Your task to perform on an android device: open app "Move to iOS" (install if not already installed), go to login, and select forgot password Image 0: 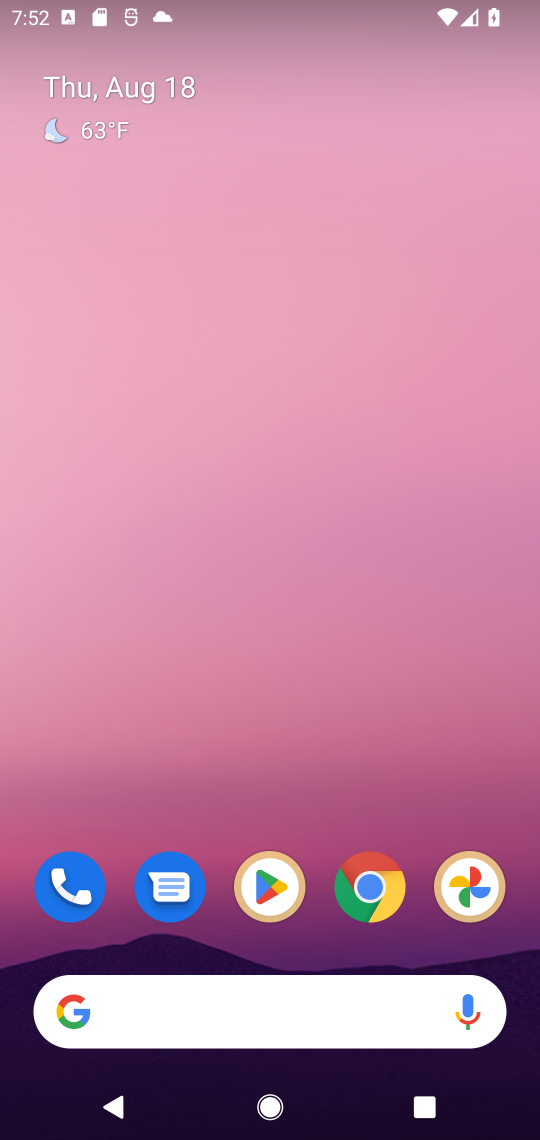
Step 0: drag from (311, 884) to (306, 118)
Your task to perform on an android device: open app "Move to iOS" (install if not already installed), go to login, and select forgot password Image 1: 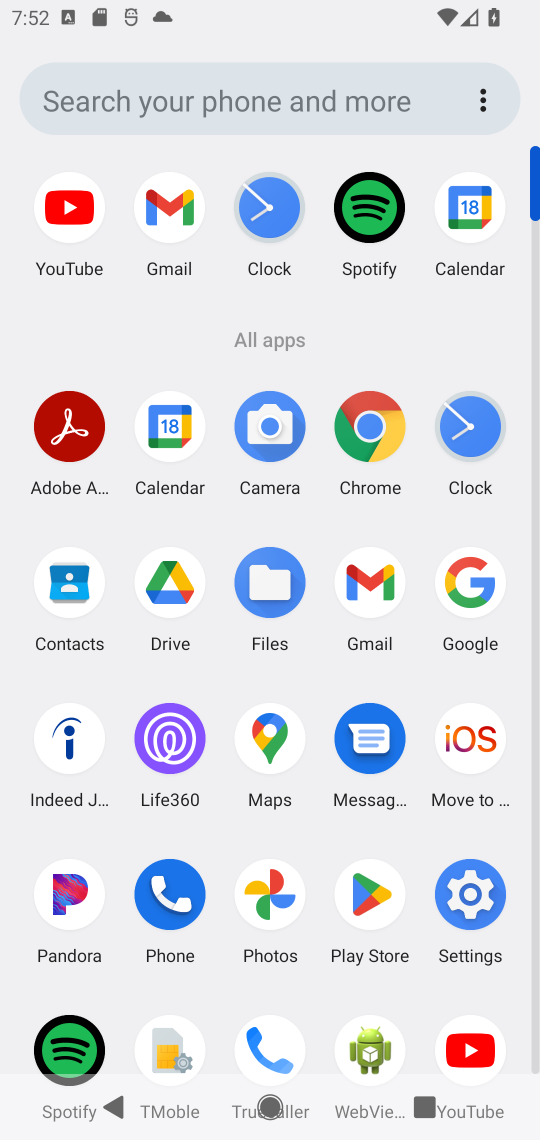
Step 1: click (375, 902)
Your task to perform on an android device: open app "Move to iOS" (install if not already installed), go to login, and select forgot password Image 2: 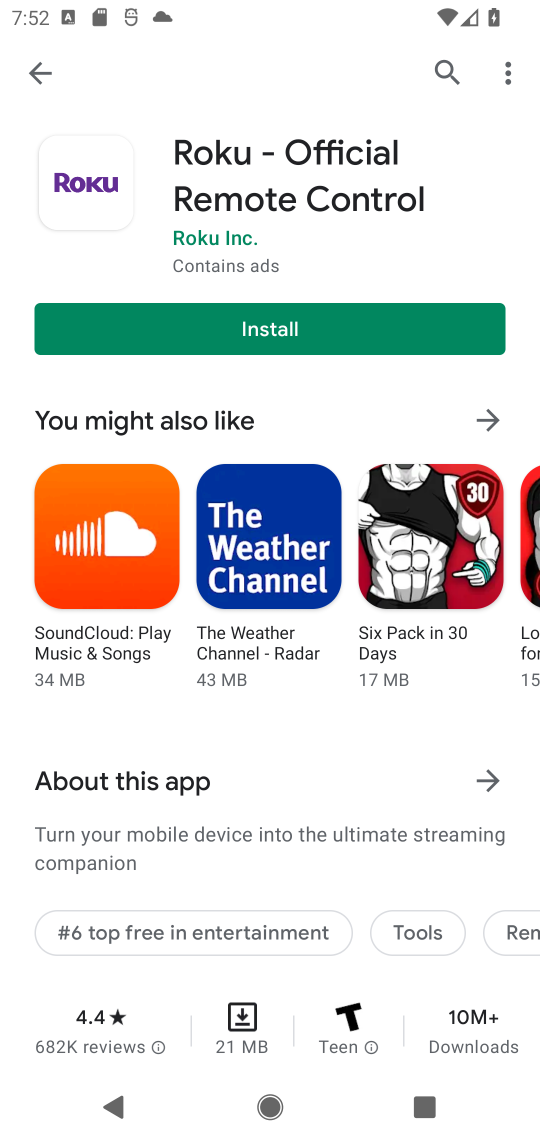
Step 2: click (444, 74)
Your task to perform on an android device: open app "Move to iOS" (install if not already installed), go to login, and select forgot password Image 3: 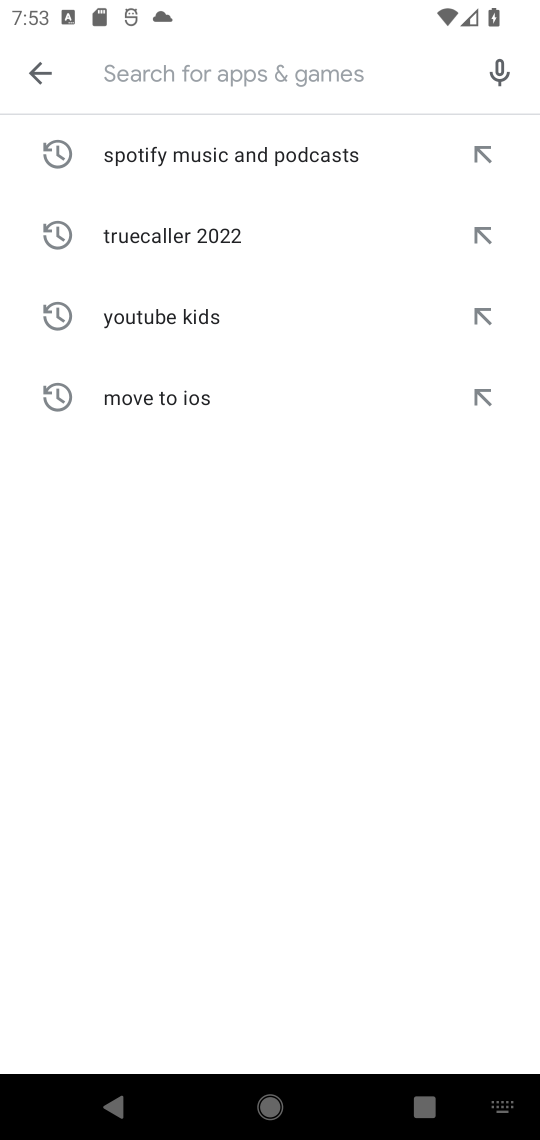
Step 3: type "Move to iOS"
Your task to perform on an android device: open app "Move to iOS" (install if not already installed), go to login, and select forgot password Image 4: 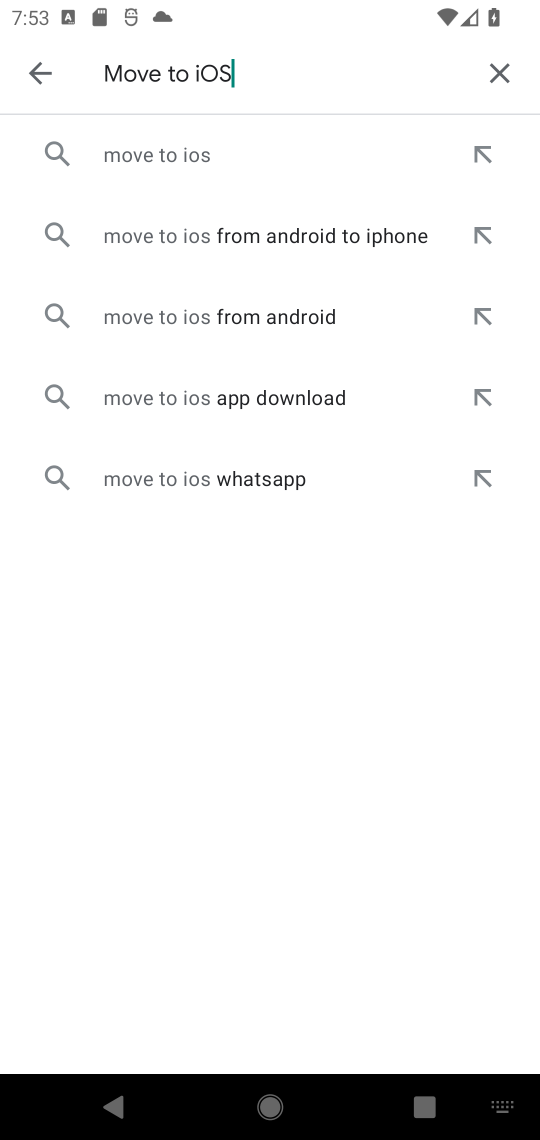
Step 4: click (195, 149)
Your task to perform on an android device: open app "Move to iOS" (install if not already installed), go to login, and select forgot password Image 5: 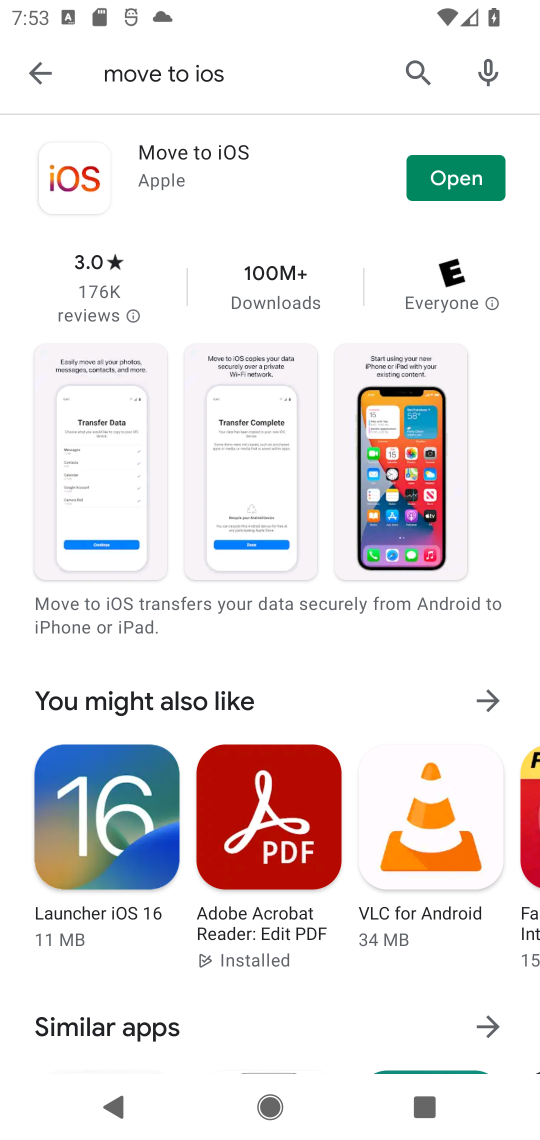
Step 5: click (440, 189)
Your task to perform on an android device: open app "Move to iOS" (install if not already installed), go to login, and select forgot password Image 6: 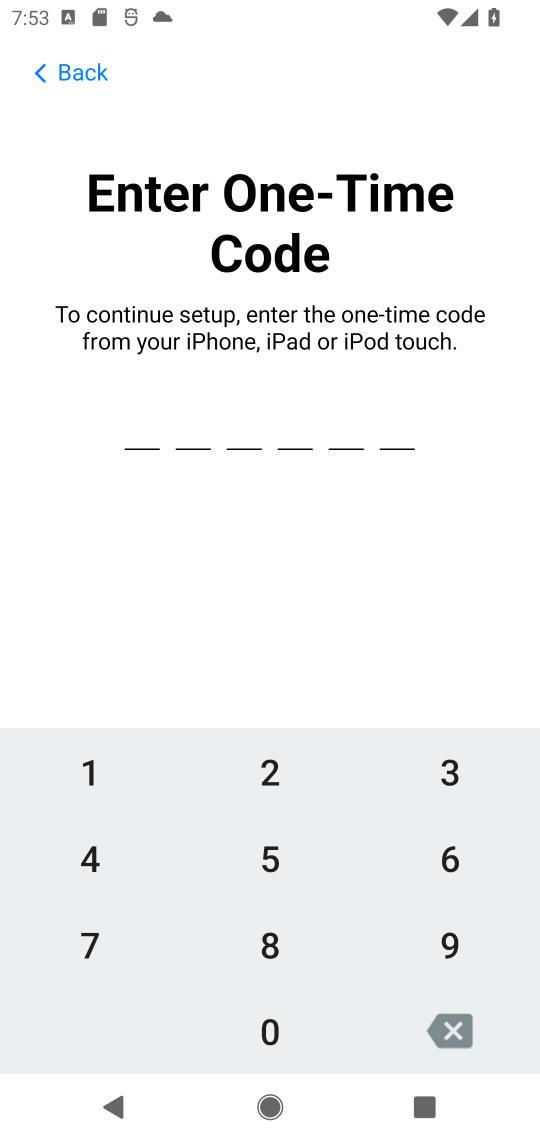
Step 6: task complete